Your task to perform on an android device: Do I have any events this weekend? Image 0: 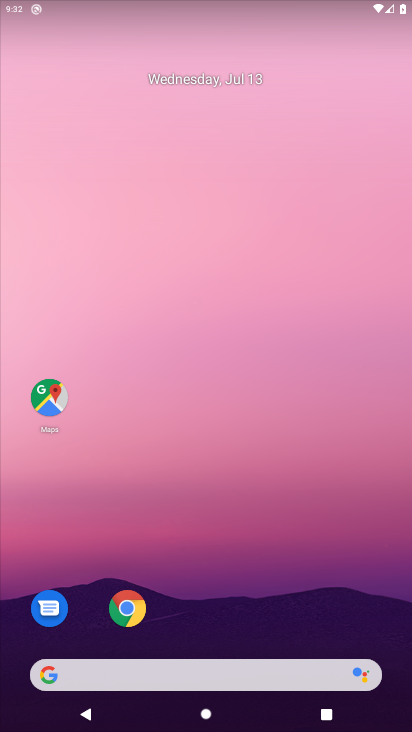
Step 0: click (115, 680)
Your task to perform on an android device: Do I have any events this weekend? Image 1: 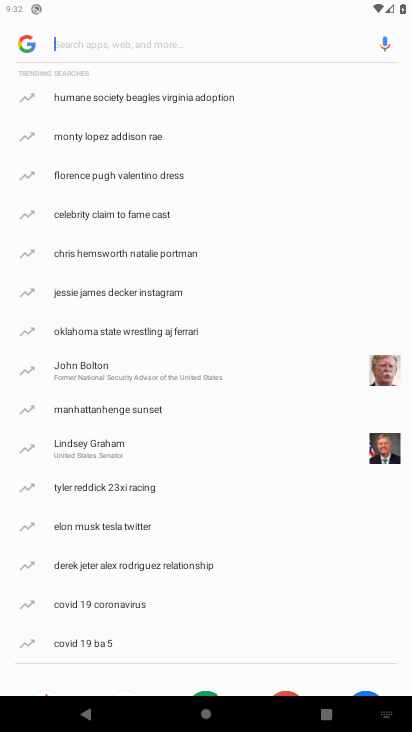
Step 1: type "Do I have any events this weekend?"
Your task to perform on an android device: Do I have any events this weekend? Image 2: 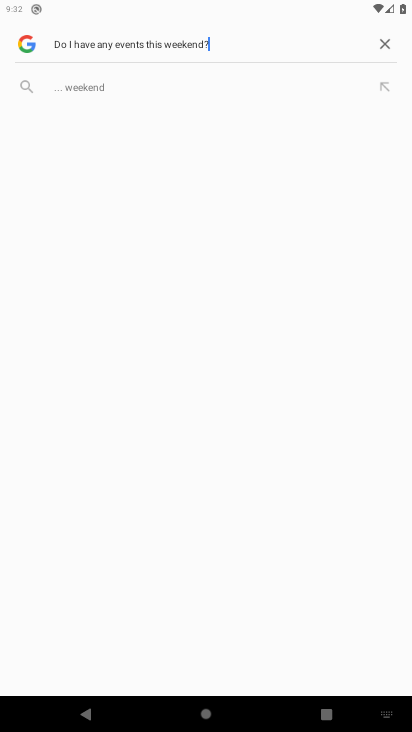
Step 2: type ""
Your task to perform on an android device: Do I have any events this weekend? Image 3: 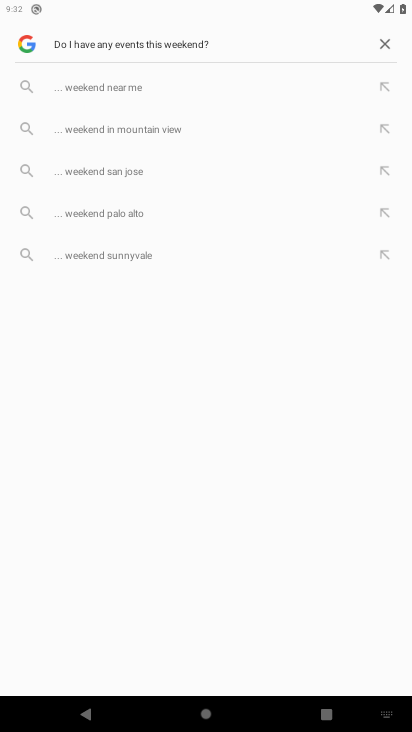
Step 3: type ""
Your task to perform on an android device: Do I have any events this weekend? Image 4: 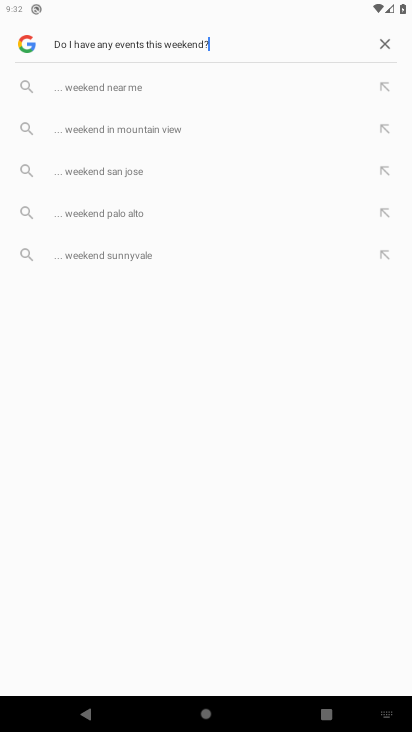
Step 4: type ""
Your task to perform on an android device: Do I have any events this weekend? Image 5: 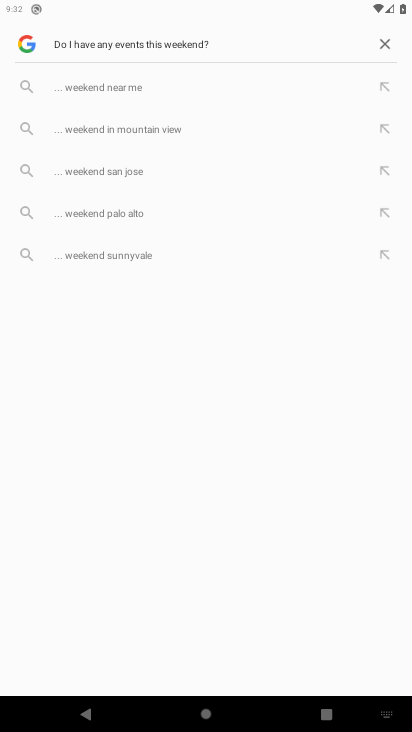
Step 5: task complete